Your task to perform on an android device: Go to display settings Image 0: 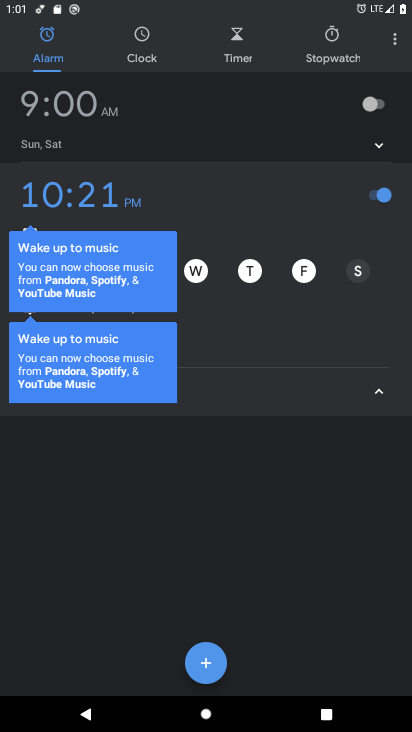
Step 0: press home button
Your task to perform on an android device: Go to display settings Image 1: 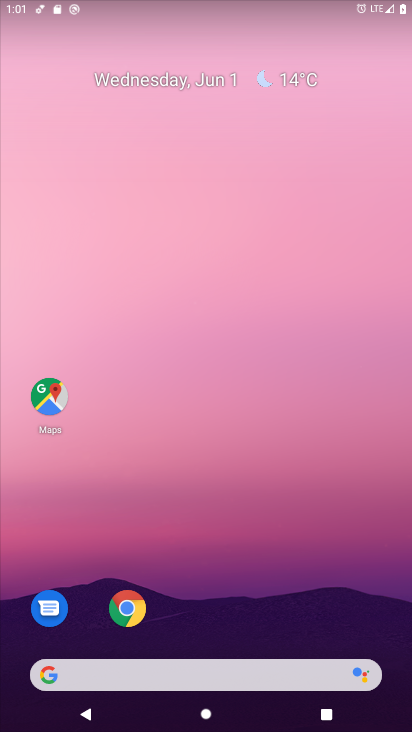
Step 1: drag from (223, 622) to (347, 79)
Your task to perform on an android device: Go to display settings Image 2: 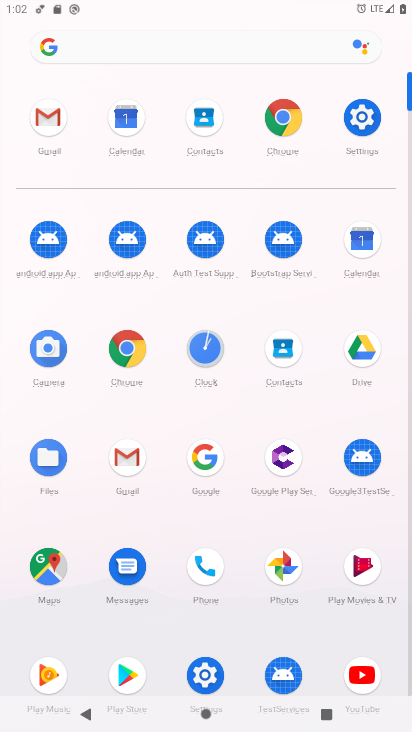
Step 2: click (358, 121)
Your task to perform on an android device: Go to display settings Image 3: 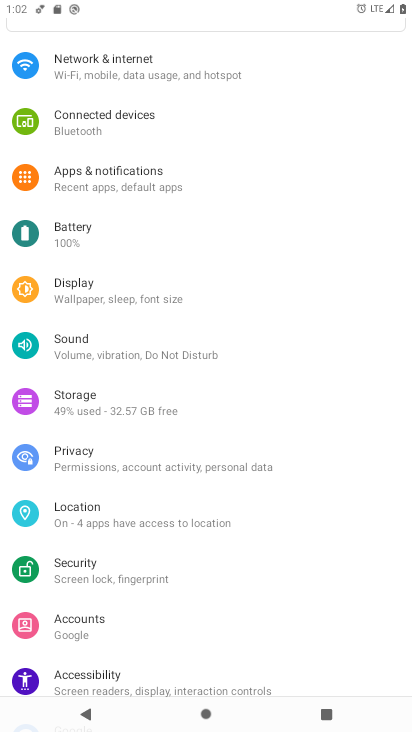
Step 3: click (134, 292)
Your task to perform on an android device: Go to display settings Image 4: 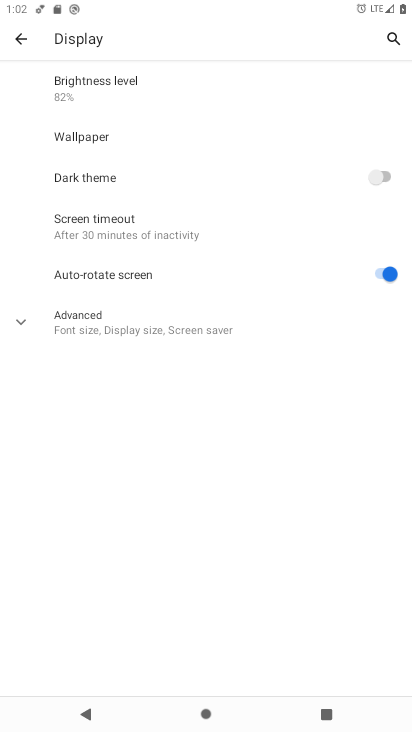
Step 4: task complete